Your task to perform on an android device: turn on sleep mode Image 0: 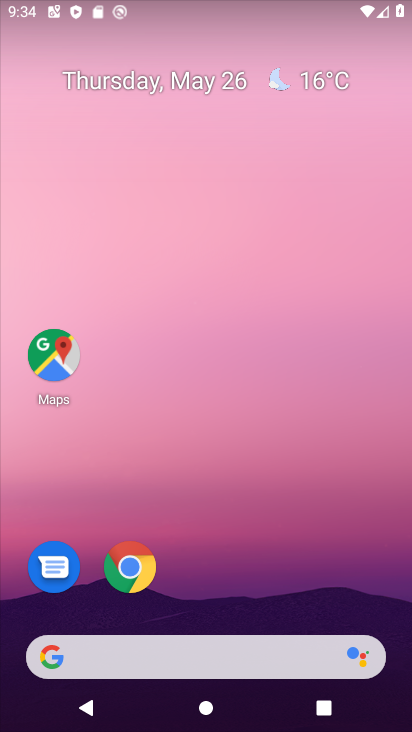
Step 0: drag from (395, 700) to (313, 141)
Your task to perform on an android device: turn on sleep mode Image 1: 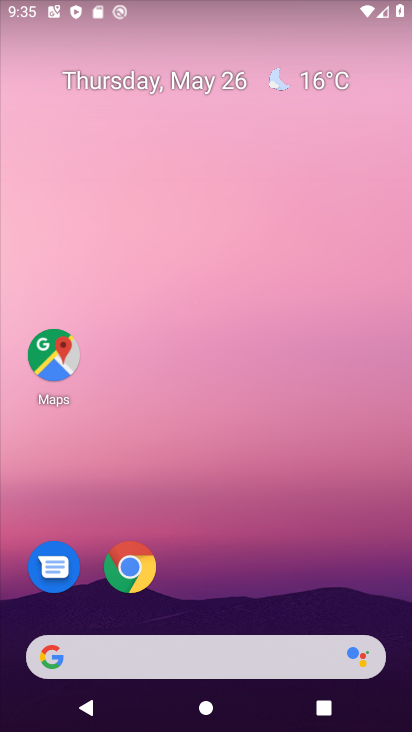
Step 1: drag from (393, 706) to (296, 146)
Your task to perform on an android device: turn on sleep mode Image 2: 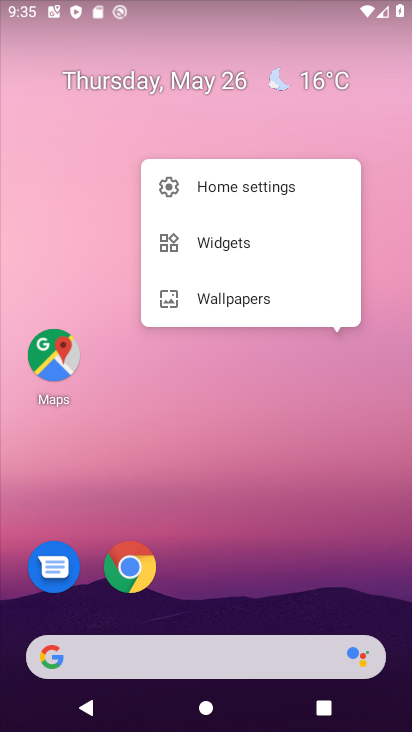
Step 2: click (397, 605)
Your task to perform on an android device: turn on sleep mode Image 3: 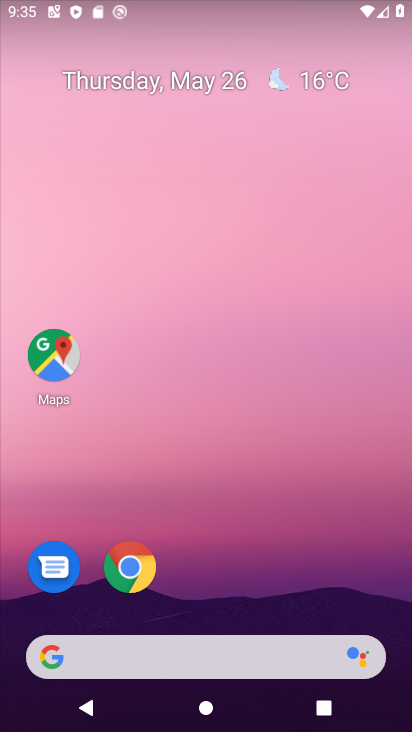
Step 3: drag from (397, 682) to (349, 127)
Your task to perform on an android device: turn on sleep mode Image 4: 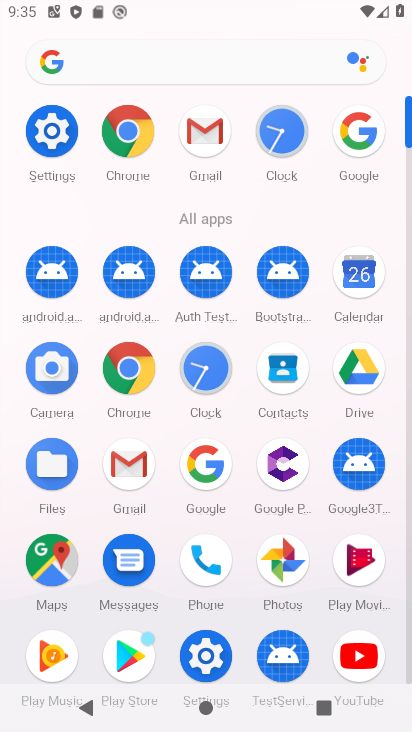
Step 4: click (47, 136)
Your task to perform on an android device: turn on sleep mode Image 5: 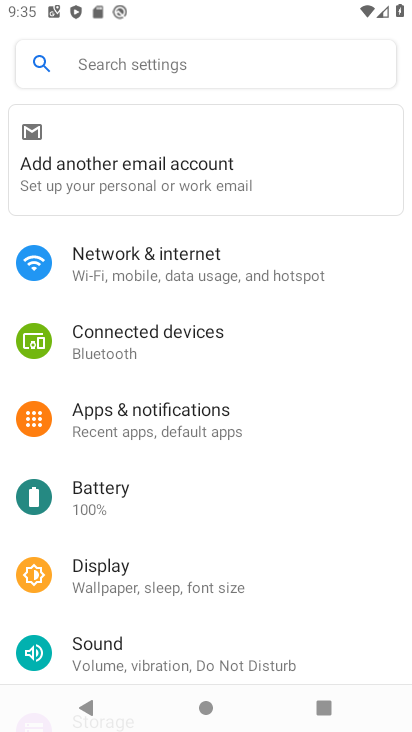
Step 5: click (110, 569)
Your task to perform on an android device: turn on sleep mode Image 6: 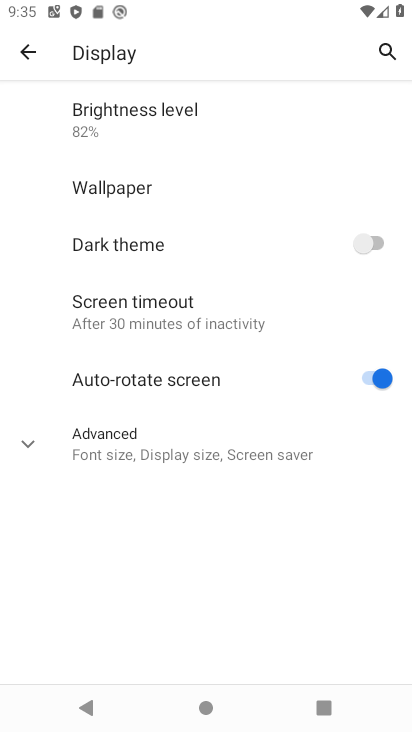
Step 6: click (127, 304)
Your task to perform on an android device: turn on sleep mode Image 7: 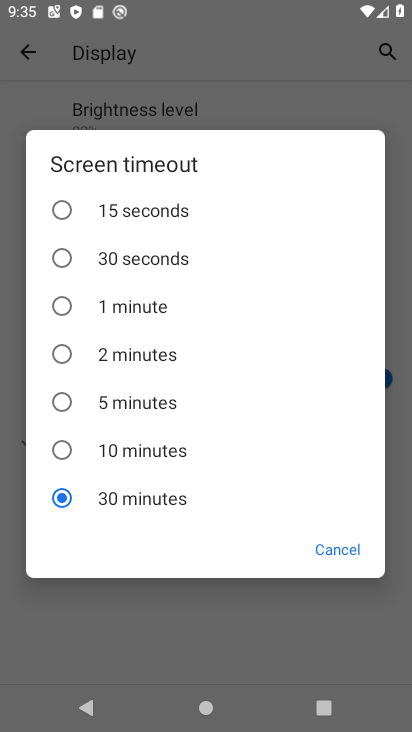
Step 7: task complete